Your task to perform on an android device: turn on the 12-hour format for clock Image 0: 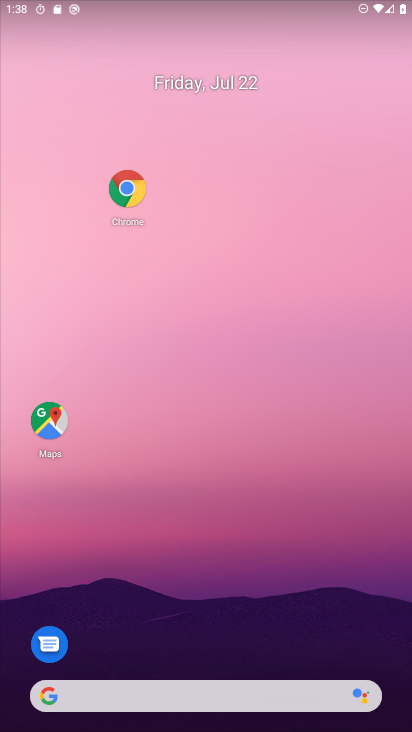
Step 0: drag from (186, 642) to (239, 59)
Your task to perform on an android device: turn on the 12-hour format for clock Image 1: 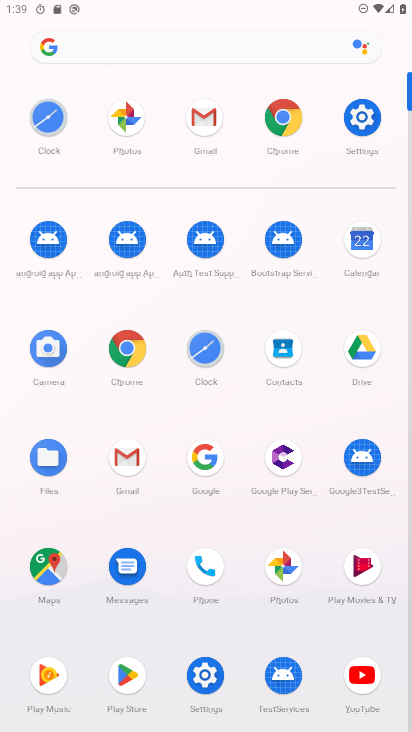
Step 1: click (64, 110)
Your task to perform on an android device: turn on the 12-hour format for clock Image 2: 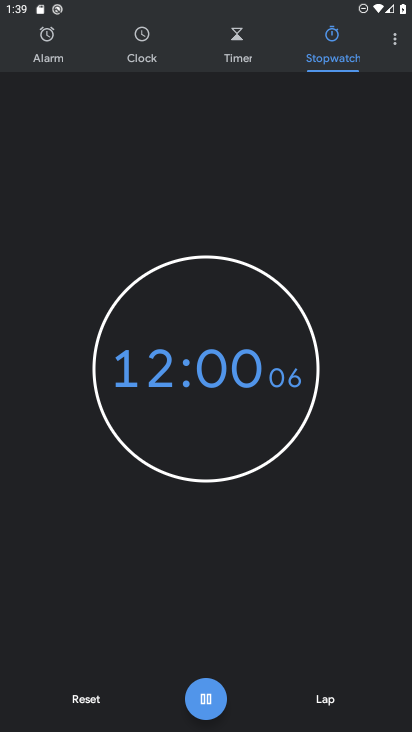
Step 2: click (385, 45)
Your task to perform on an android device: turn on the 12-hour format for clock Image 3: 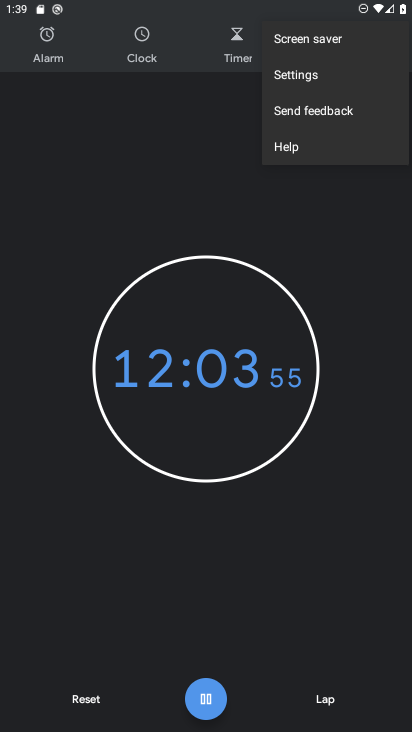
Step 3: click (289, 83)
Your task to perform on an android device: turn on the 12-hour format for clock Image 4: 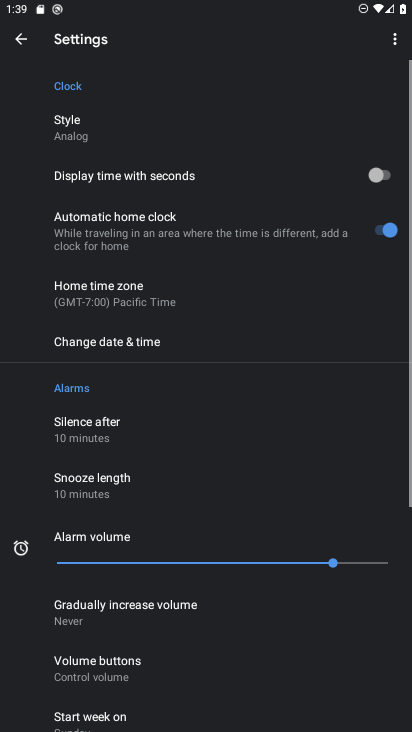
Step 4: click (289, 83)
Your task to perform on an android device: turn on the 12-hour format for clock Image 5: 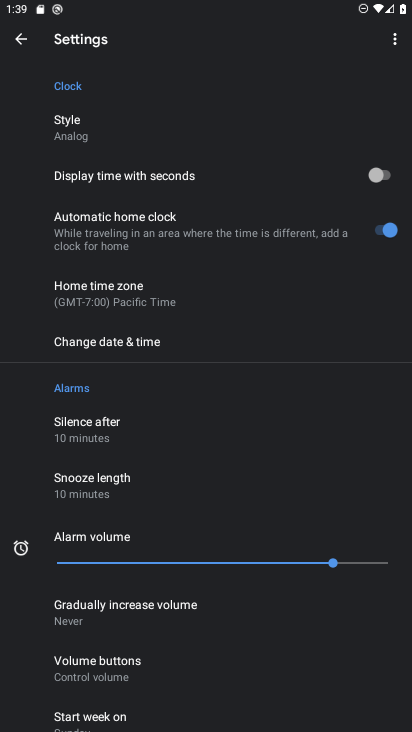
Step 5: task complete